Your task to perform on an android device: turn pop-ups off in chrome Image 0: 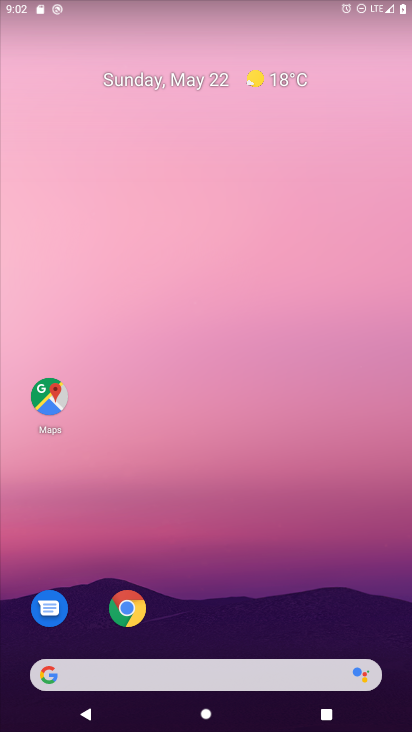
Step 0: click (123, 617)
Your task to perform on an android device: turn pop-ups off in chrome Image 1: 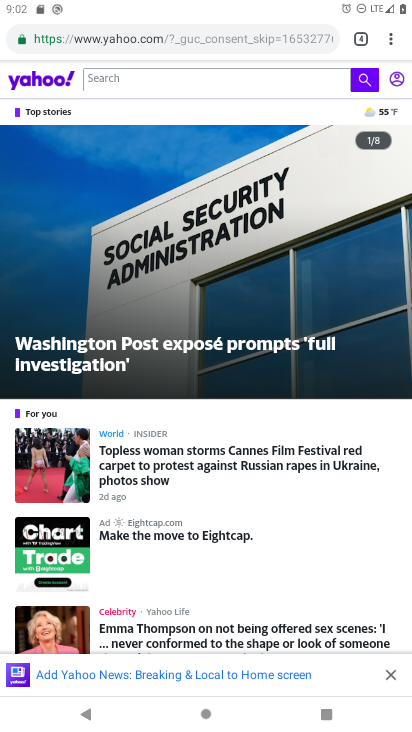
Step 1: click (393, 43)
Your task to perform on an android device: turn pop-ups off in chrome Image 2: 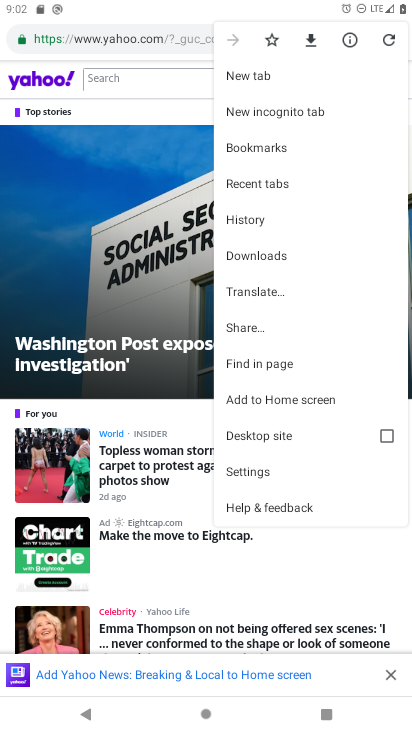
Step 2: click (253, 468)
Your task to perform on an android device: turn pop-ups off in chrome Image 3: 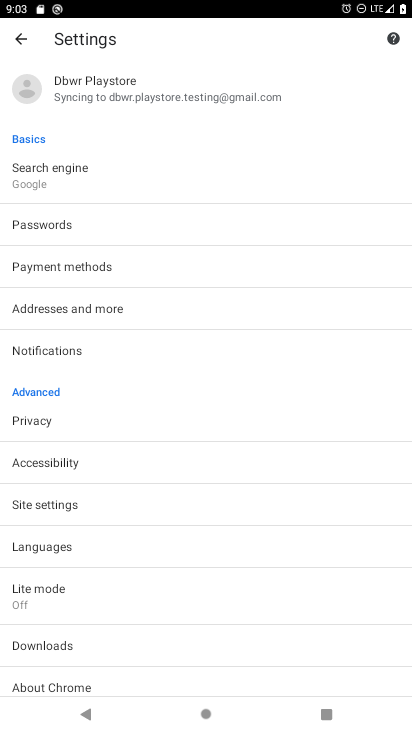
Step 3: click (61, 509)
Your task to perform on an android device: turn pop-ups off in chrome Image 4: 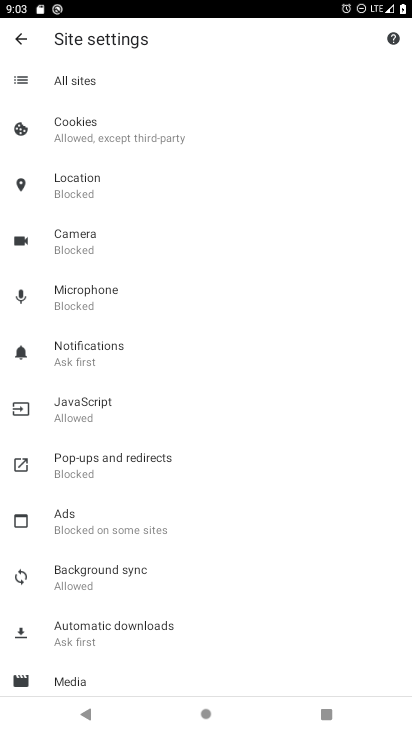
Step 4: click (83, 460)
Your task to perform on an android device: turn pop-ups off in chrome Image 5: 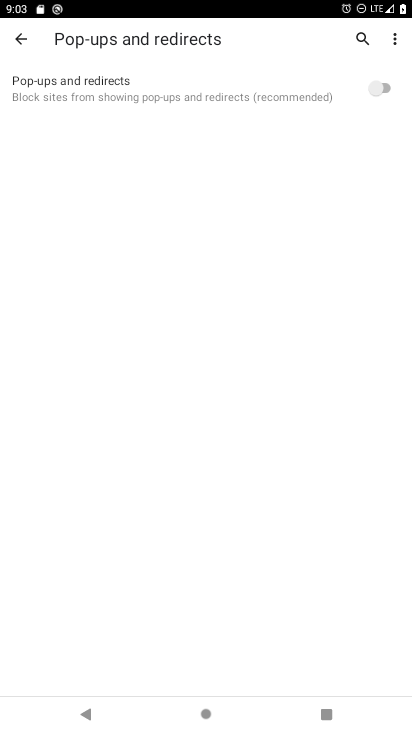
Step 5: task complete